Your task to perform on an android device: Go to Reddit.com Image 0: 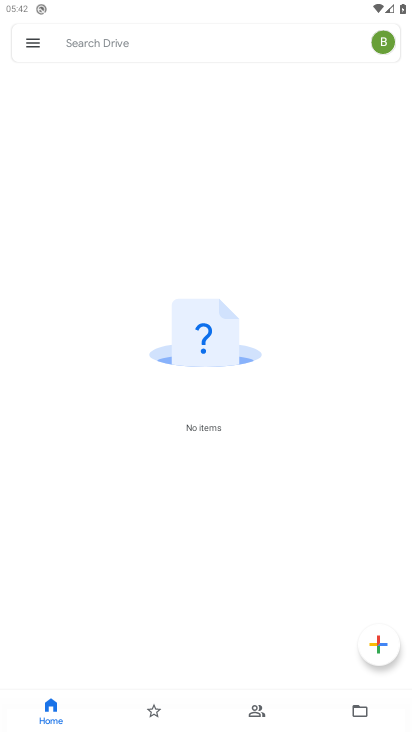
Step 0: press home button
Your task to perform on an android device: Go to Reddit.com Image 1: 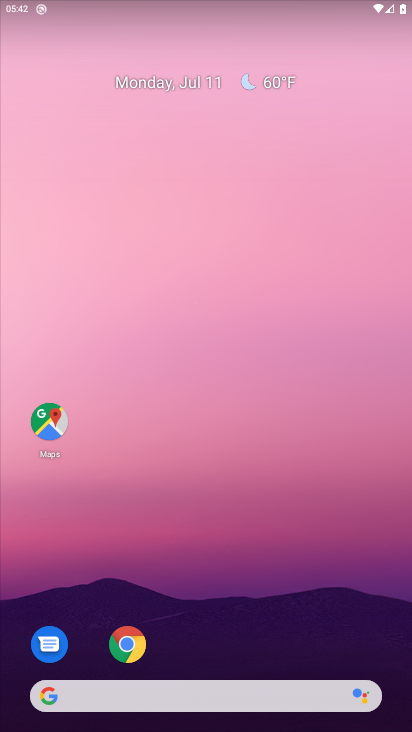
Step 1: drag from (194, 651) to (220, 303)
Your task to perform on an android device: Go to Reddit.com Image 2: 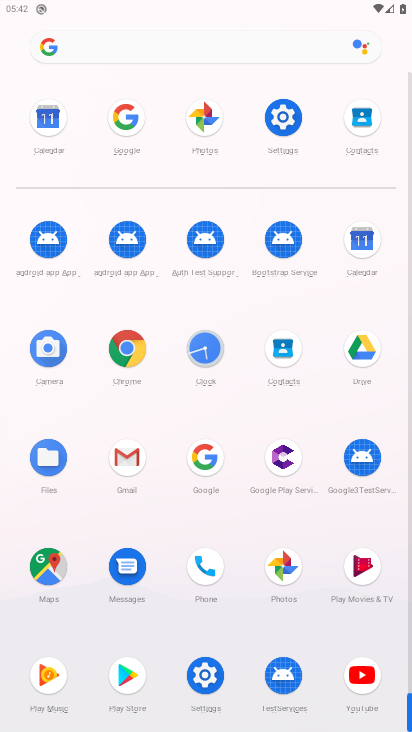
Step 2: click (203, 451)
Your task to perform on an android device: Go to Reddit.com Image 3: 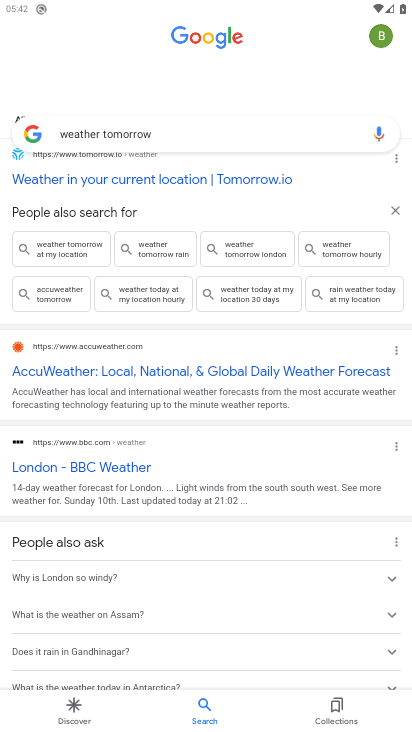
Step 3: click (170, 136)
Your task to perform on an android device: Go to Reddit.com Image 4: 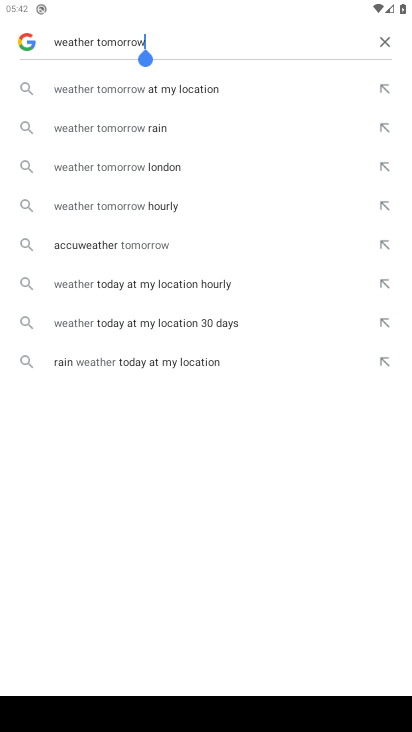
Step 4: click (384, 45)
Your task to perform on an android device: Go to Reddit.com Image 5: 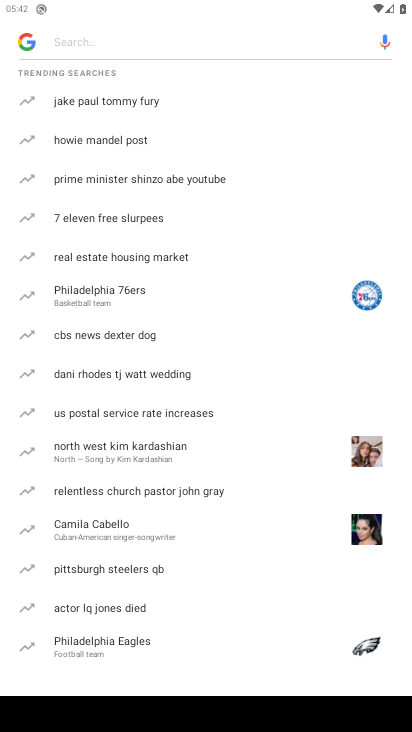
Step 5: click (88, 49)
Your task to perform on an android device: Go to Reddit.com Image 6: 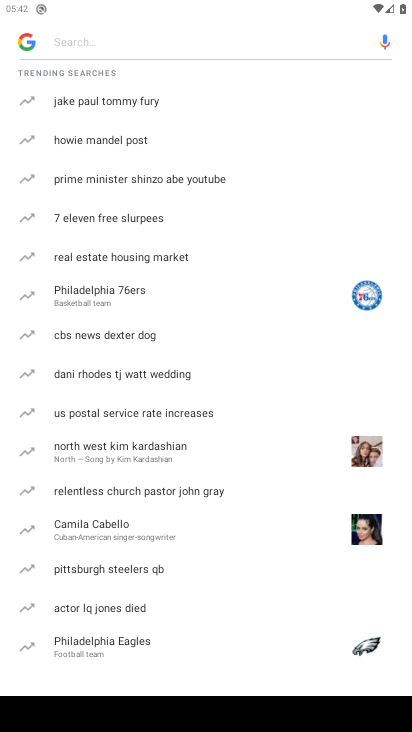
Step 6: type "reddit.com"
Your task to perform on an android device: Go to Reddit.com Image 7: 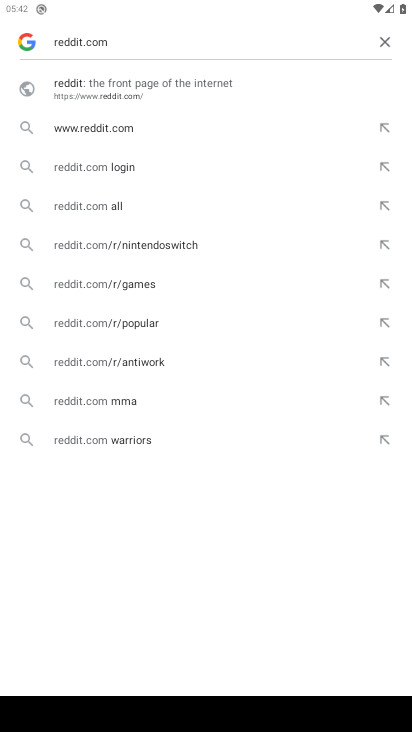
Step 7: click (78, 127)
Your task to perform on an android device: Go to Reddit.com Image 8: 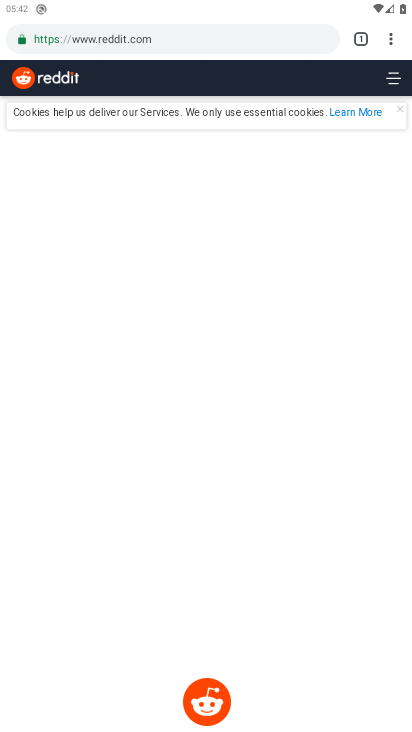
Step 8: task complete